Your task to perform on an android device: clear all cookies in the chrome app Image 0: 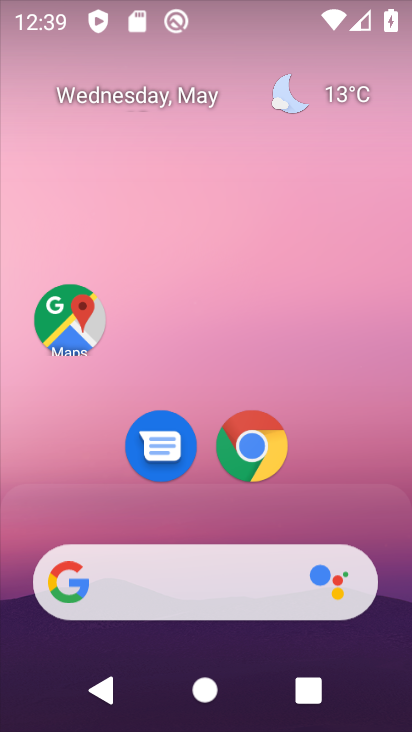
Step 0: click (266, 455)
Your task to perform on an android device: clear all cookies in the chrome app Image 1: 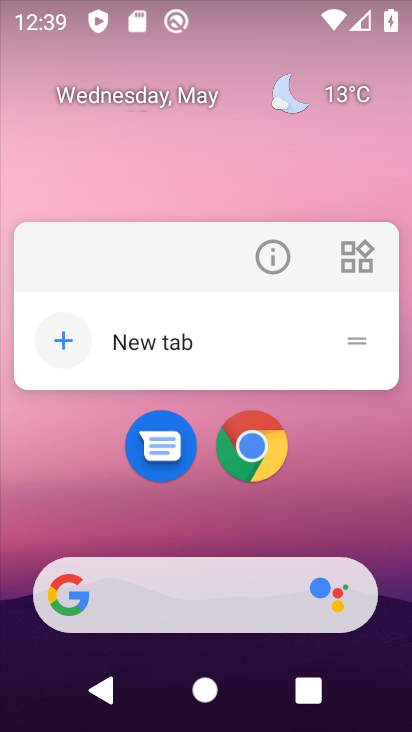
Step 1: click (265, 458)
Your task to perform on an android device: clear all cookies in the chrome app Image 2: 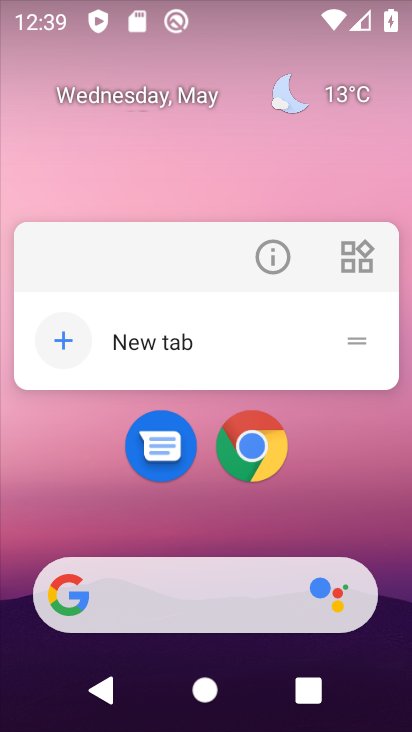
Step 2: click (264, 457)
Your task to perform on an android device: clear all cookies in the chrome app Image 3: 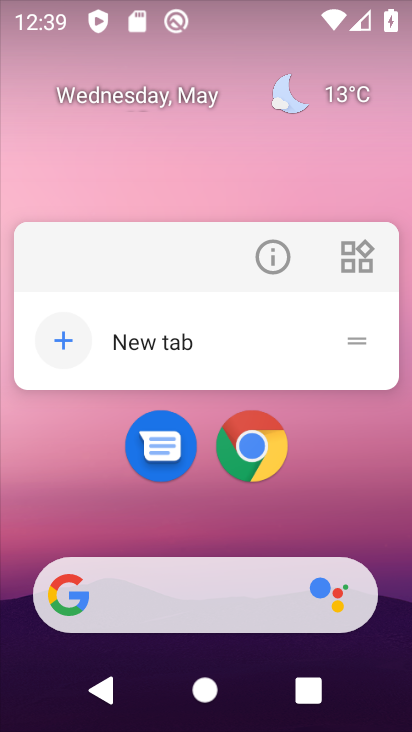
Step 3: click (264, 448)
Your task to perform on an android device: clear all cookies in the chrome app Image 4: 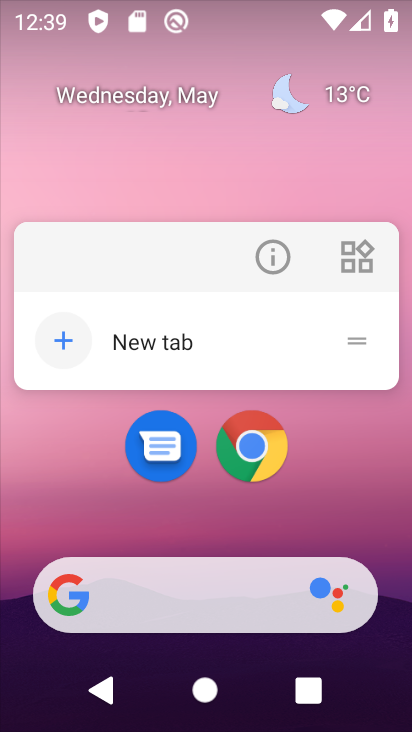
Step 4: click (263, 447)
Your task to perform on an android device: clear all cookies in the chrome app Image 5: 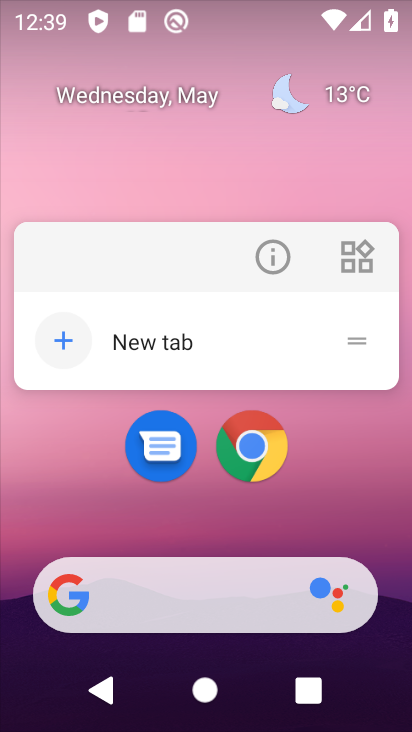
Step 5: click (262, 446)
Your task to perform on an android device: clear all cookies in the chrome app Image 6: 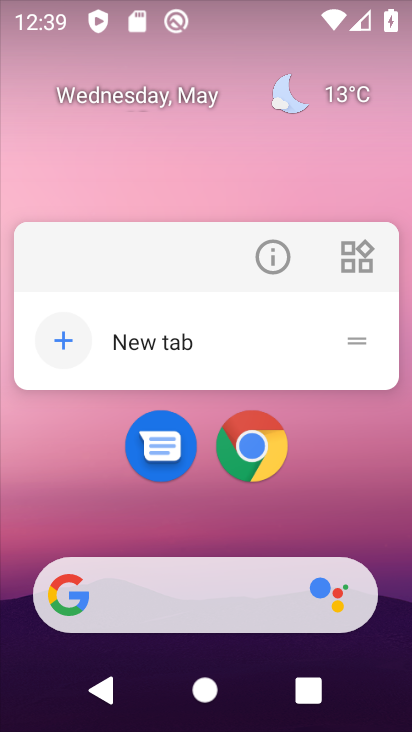
Step 6: click (241, 447)
Your task to perform on an android device: clear all cookies in the chrome app Image 7: 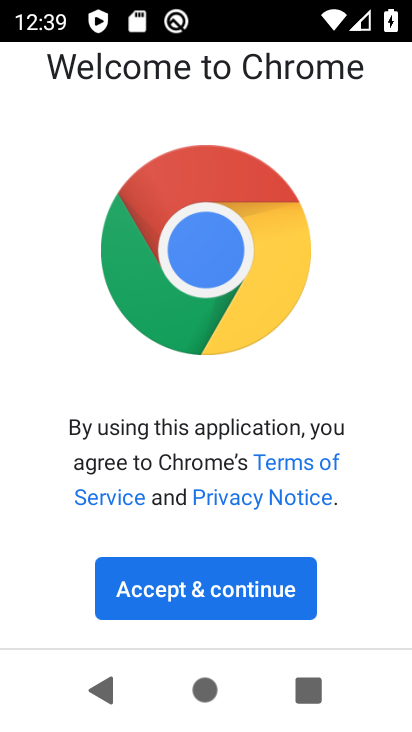
Step 7: click (249, 602)
Your task to perform on an android device: clear all cookies in the chrome app Image 8: 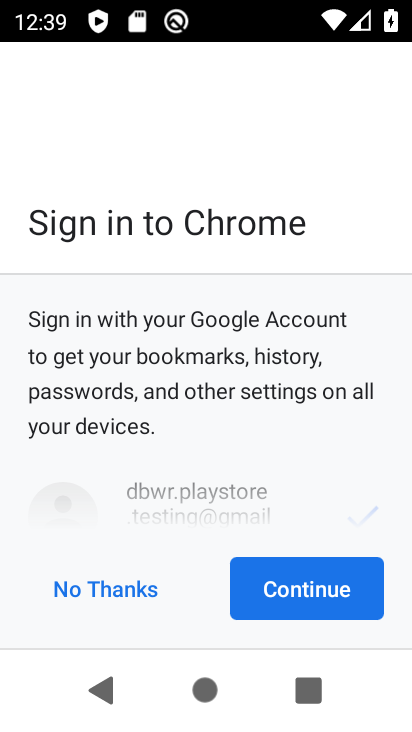
Step 8: click (305, 599)
Your task to perform on an android device: clear all cookies in the chrome app Image 9: 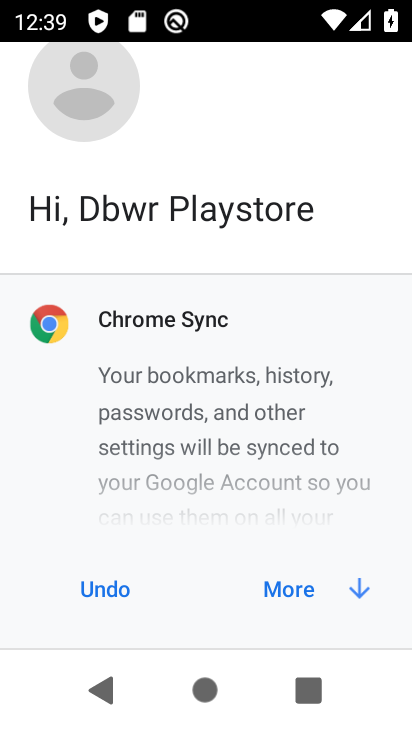
Step 9: click (306, 599)
Your task to perform on an android device: clear all cookies in the chrome app Image 10: 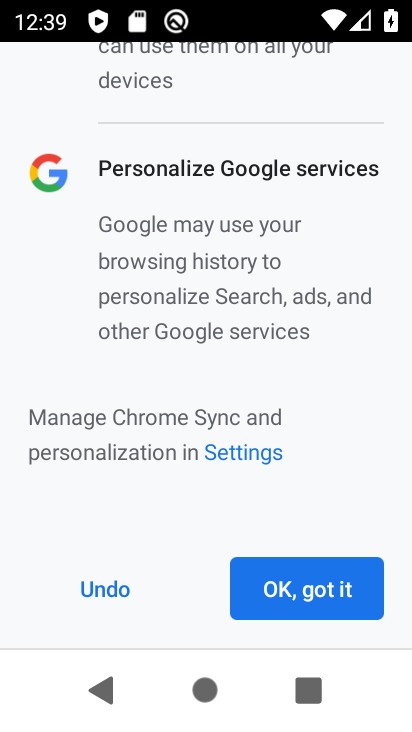
Step 10: click (307, 600)
Your task to perform on an android device: clear all cookies in the chrome app Image 11: 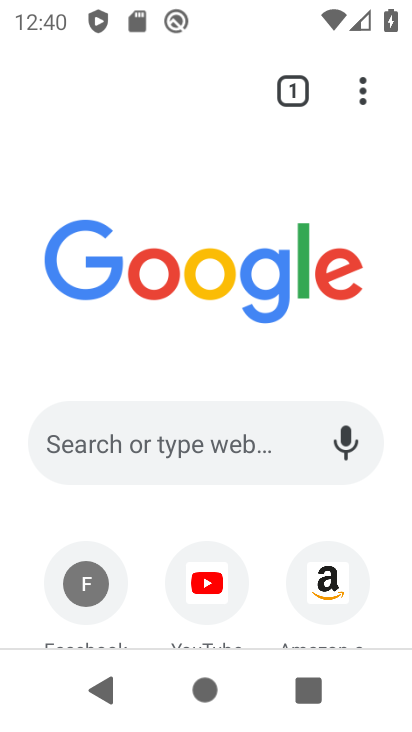
Step 11: drag from (376, 83) to (322, 498)
Your task to perform on an android device: clear all cookies in the chrome app Image 12: 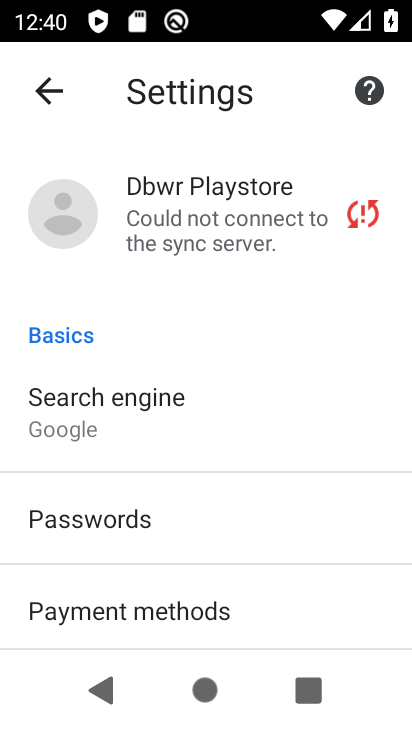
Step 12: drag from (146, 562) to (243, 197)
Your task to perform on an android device: clear all cookies in the chrome app Image 13: 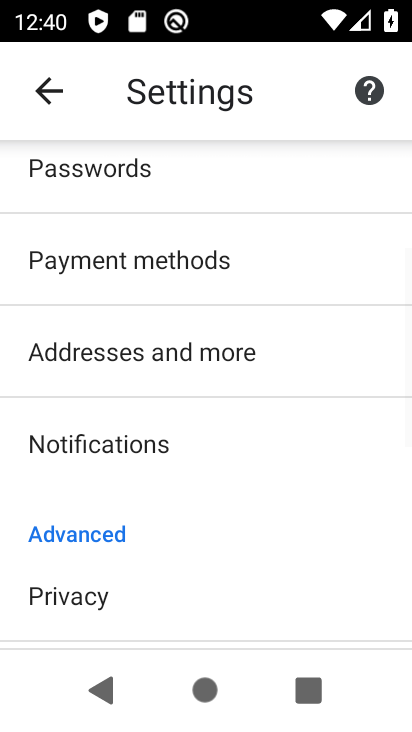
Step 13: click (146, 579)
Your task to perform on an android device: clear all cookies in the chrome app Image 14: 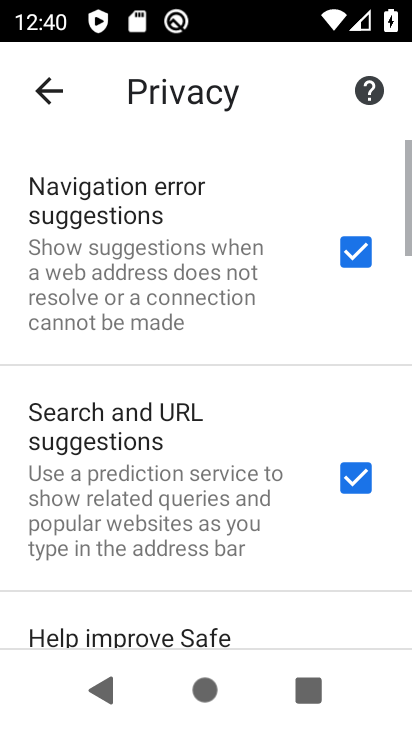
Step 14: drag from (149, 582) to (270, 63)
Your task to perform on an android device: clear all cookies in the chrome app Image 15: 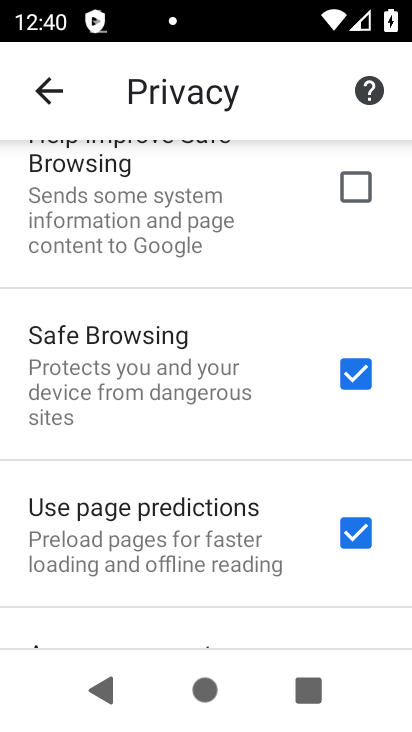
Step 15: drag from (194, 595) to (290, 72)
Your task to perform on an android device: clear all cookies in the chrome app Image 16: 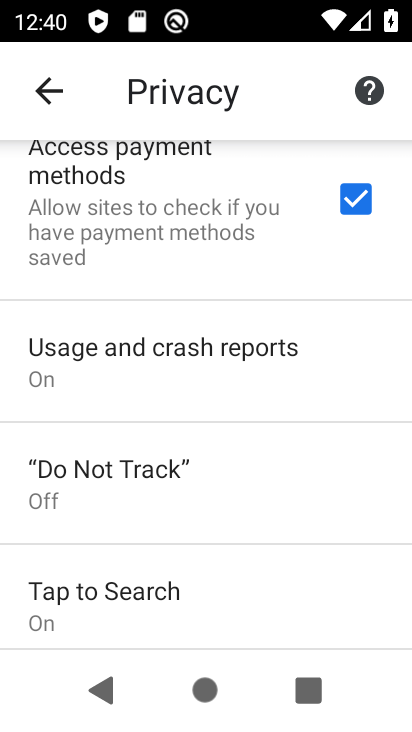
Step 16: drag from (147, 607) to (265, 130)
Your task to perform on an android device: clear all cookies in the chrome app Image 17: 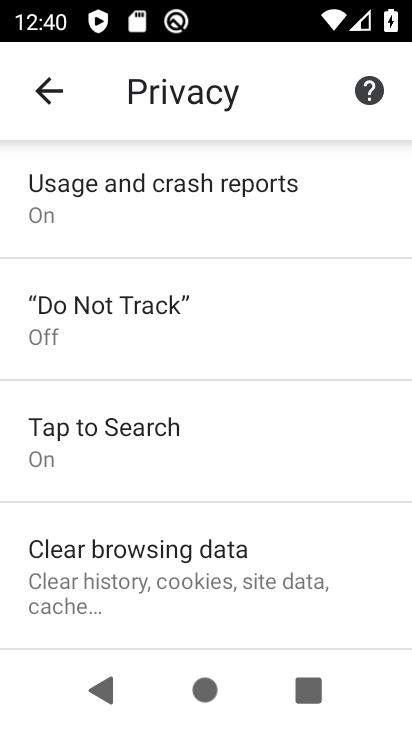
Step 17: click (126, 589)
Your task to perform on an android device: clear all cookies in the chrome app Image 18: 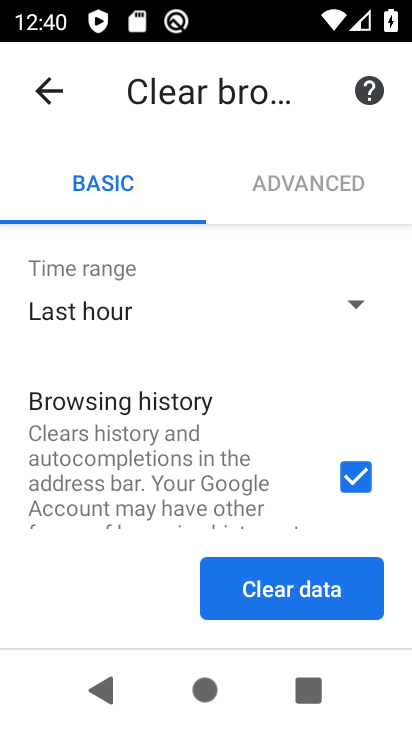
Step 18: drag from (142, 501) to (243, 399)
Your task to perform on an android device: clear all cookies in the chrome app Image 19: 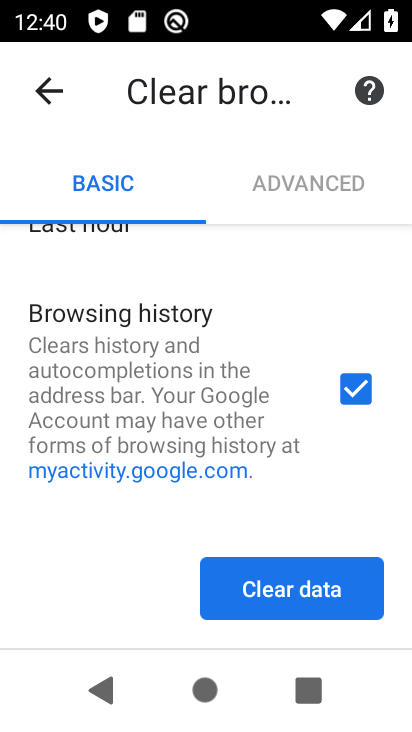
Step 19: click (353, 401)
Your task to perform on an android device: clear all cookies in the chrome app Image 20: 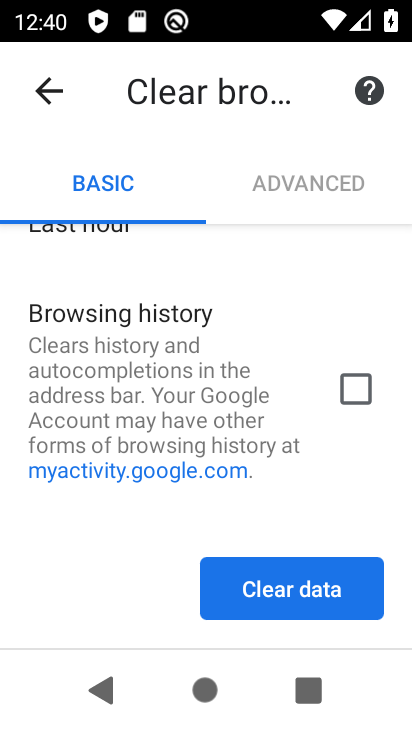
Step 20: drag from (185, 473) to (257, 155)
Your task to perform on an android device: clear all cookies in the chrome app Image 21: 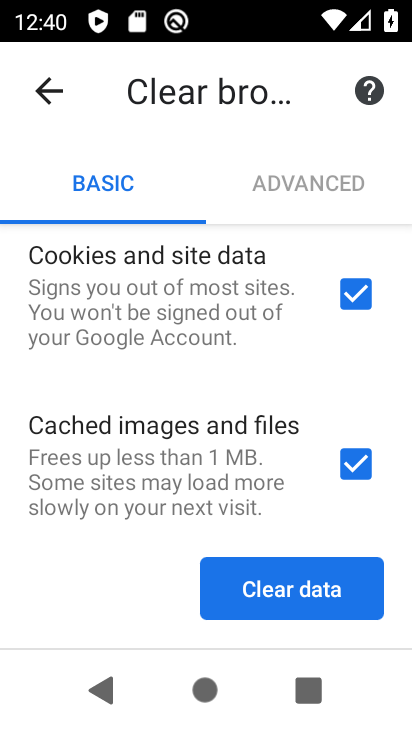
Step 21: drag from (171, 507) to (209, 455)
Your task to perform on an android device: clear all cookies in the chrome app Image 22: 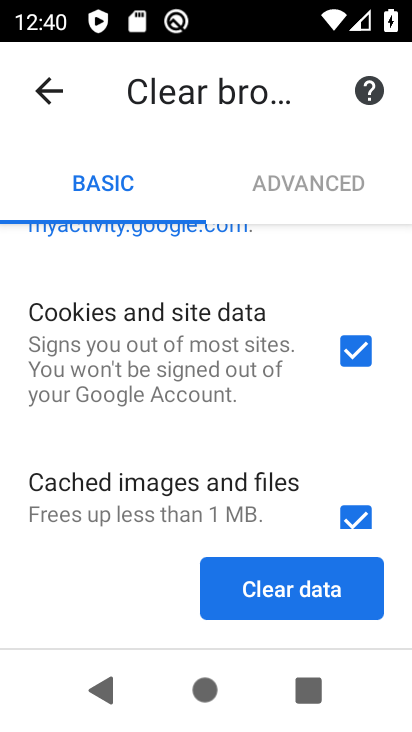
Step 22: click (352, 519)
Your task to perform on an android device: clear all cookies in the chrome app Image 23: 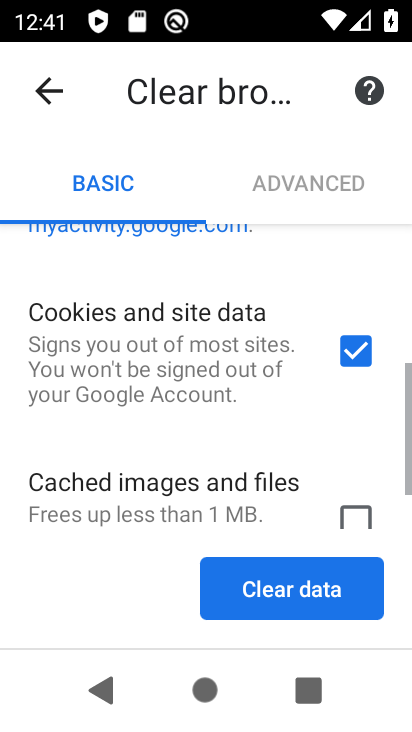
Step 23: click (298, 577)
Your task to perform on an android device: clear all cookies in the chrome app Image 24: 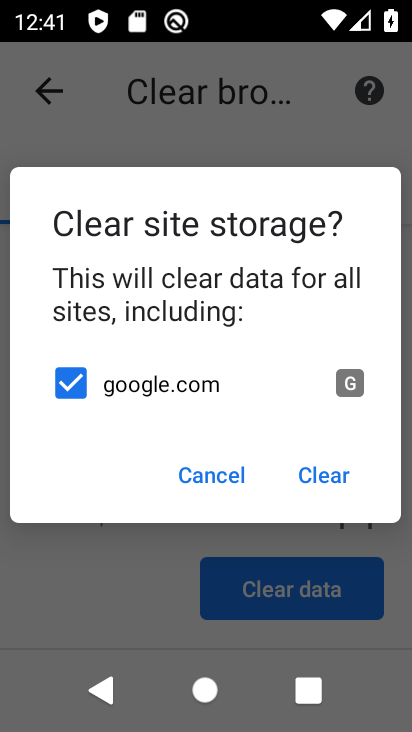
Step 24: click (327, 465)
Your task to perform on an android device: clear all cookies in the chrome app Image 25: 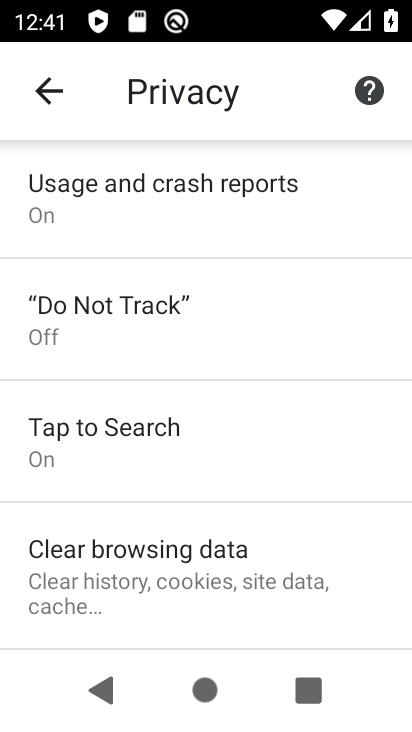
Step 25: task complete